Your task to perform on an android device: Do I have any events this weekend? Image 0: 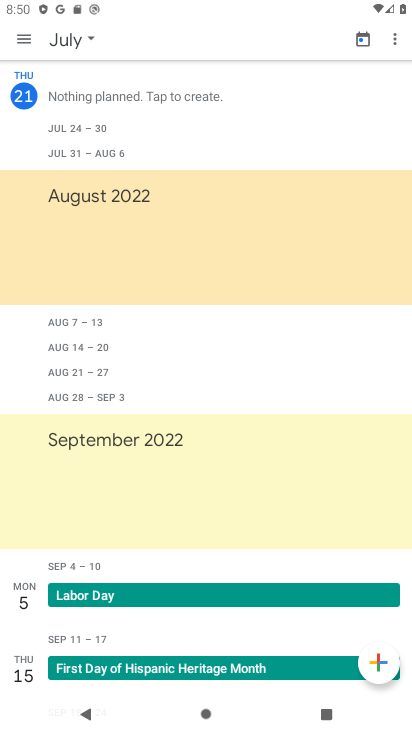
Step 0: task complete